Your task to perform on an android device: Go to wifi settings Image 0: 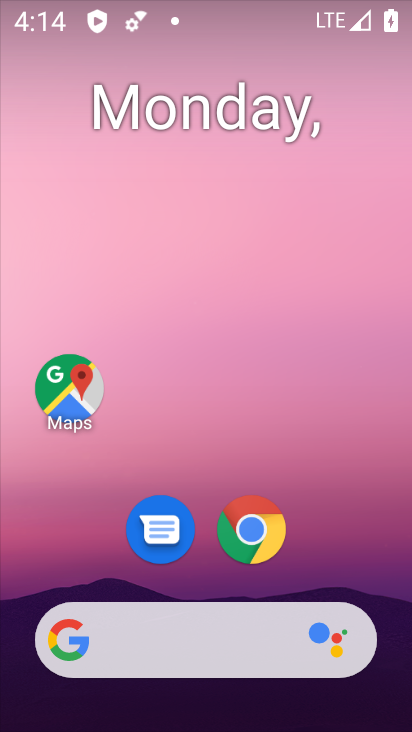
Step 0: drag from (204, 564) to (252, 85)
Your task to perform on an android device: Go to wifi settings Image 1: 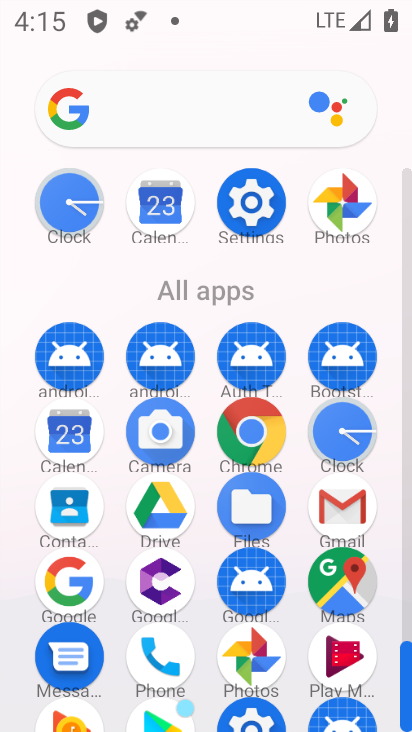
Step 1: click (249, 214)
Your task to perform on an android device: Go to wifi settings Image 2: 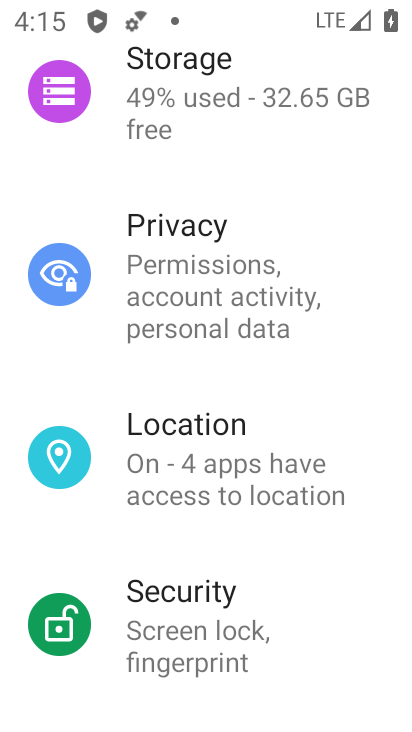
Step 2: drag from (224, 178) to (249, 483)
Your task to perform on an android device: Go to wifi settings Image 3: 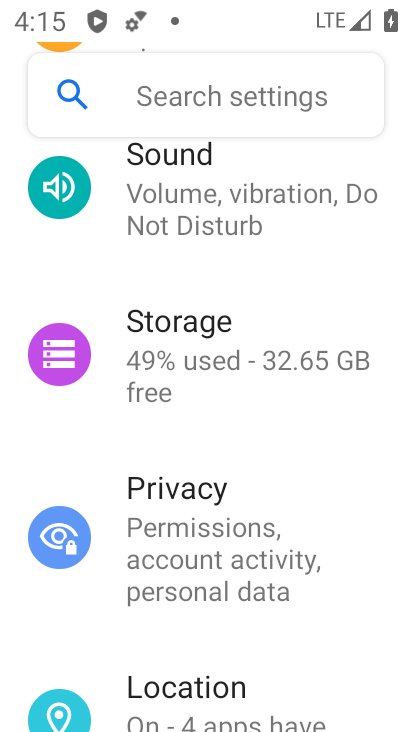
Step 3: drag from (215, 227) to (231, 477)
Your task to perform on an android device: Go to wifi settings Image 4: 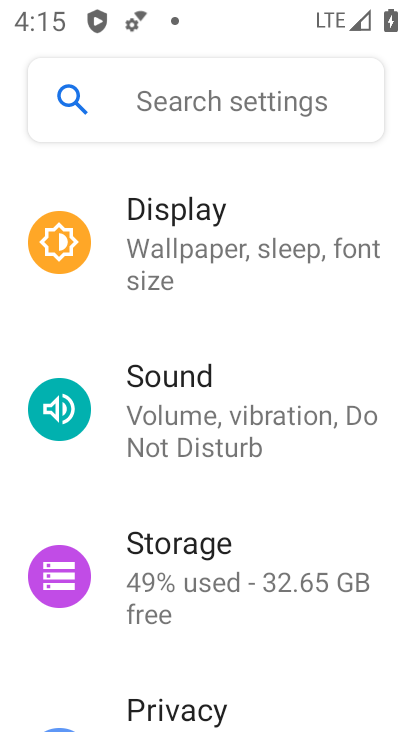
Step 4: drag from (214, 232) to (266, 538)
Your task to perform on an android device: Go to wifi settings Image 5: 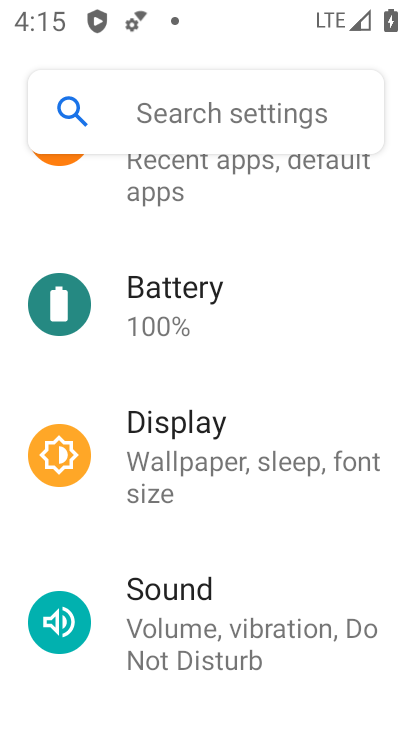
Step 5: drag from (275, 287) to (289, 450)
Your task to perform on an android device: Go to wifi settings Image 6: 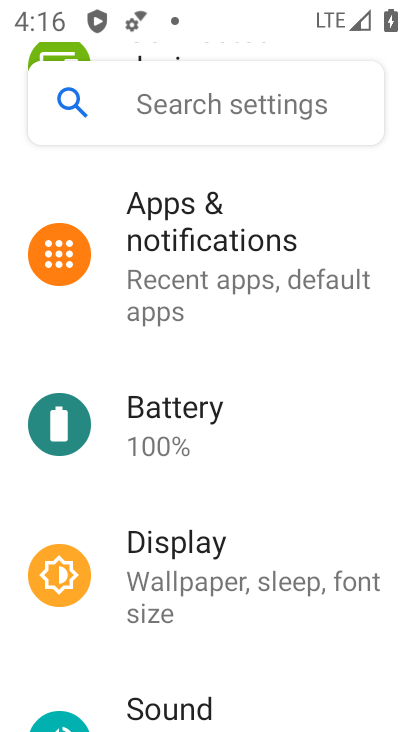
Step 6: drag from (217, 240) to (220, 617)
Your task to perform on an android device: Go to wifi settings Image 7: 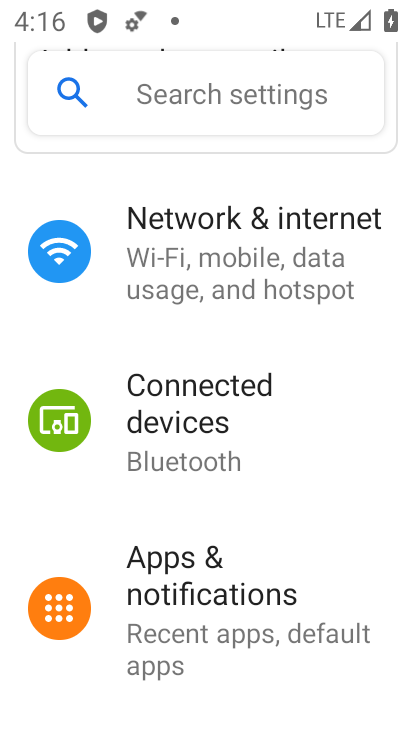
Step 7: click (159, 257)
Your task to perform on an android device: Go to wifi settings Image 8: 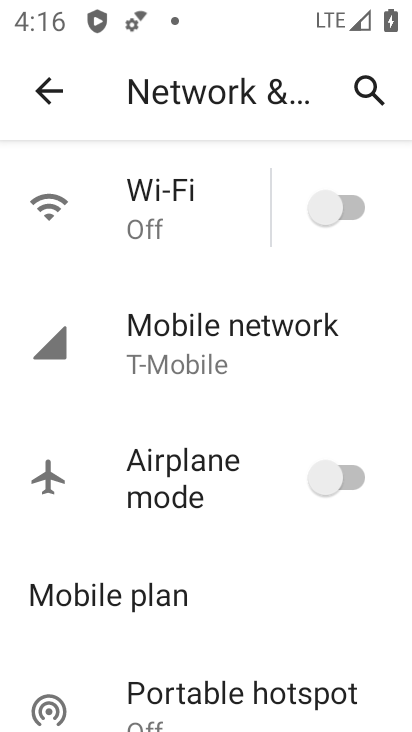
Step 8: click (147, 232)
Your task to perform on an android device: Go to wifi settings Image 9: 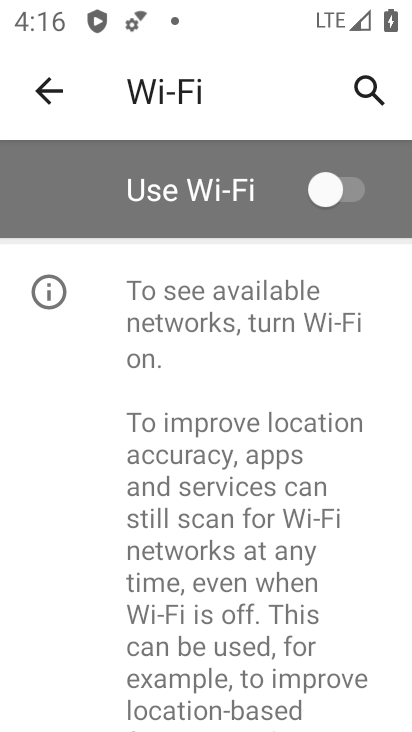
Step 9: task complete